Your task to perform on an android device: turn off location history Image 0: 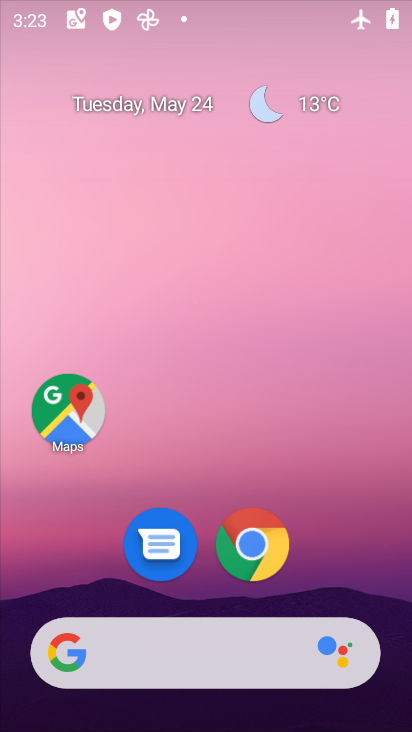
Step 0: drag from (364, 533) to (342, 108)
Your task to perform on an android device: turn off location history Image 1: 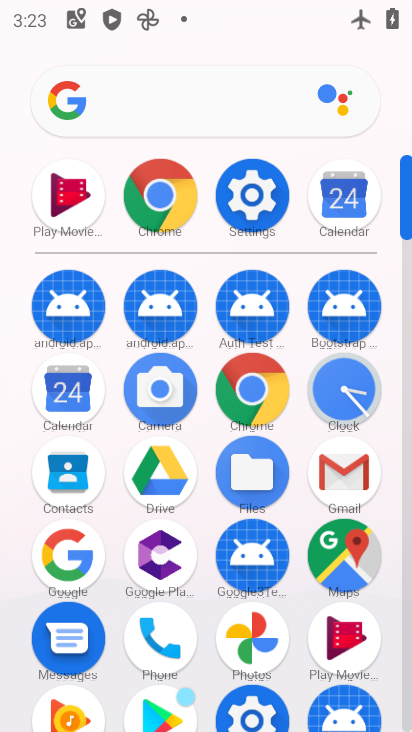
Step 1: click (281, 199)
Your task to perform on an android device: turn off location history Image 2: 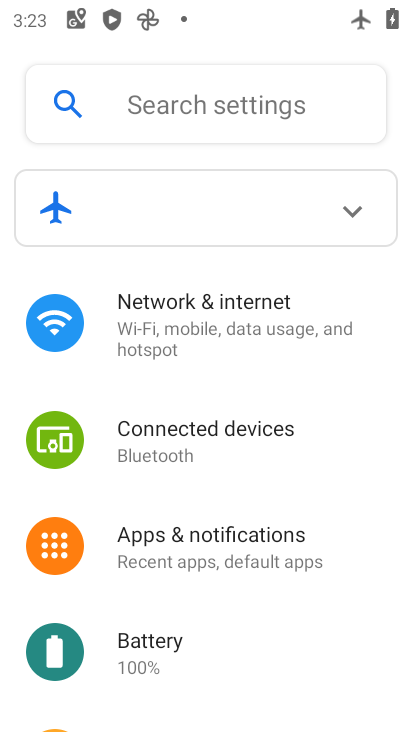
Step 2: drag from (202, 575) to (189, 235)
Your task to perform on an android device: turn off location history Image 3: 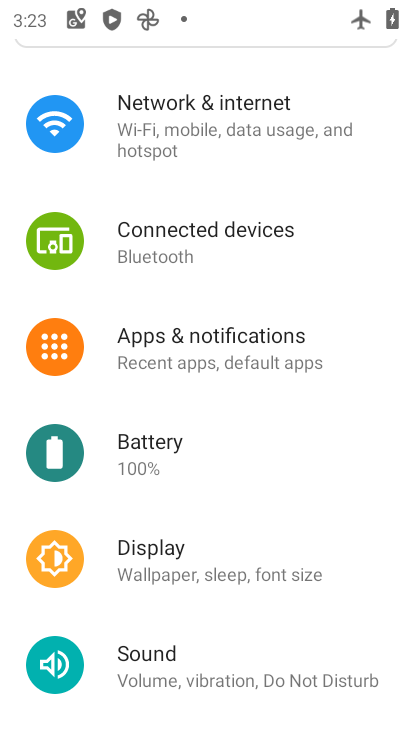
Step 3: drag from (247, 606) to (245, 155)
Your task to perform on an android device: turn off location history Image 4: 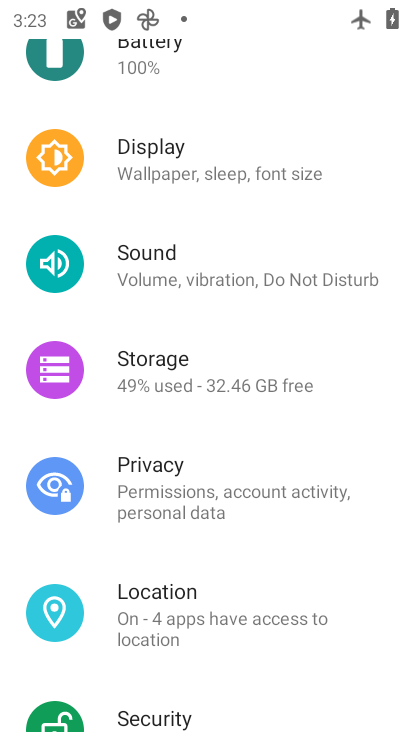
Step 4: click (203, 596)
Your task to perform on an android device: turn off location history Image 5: 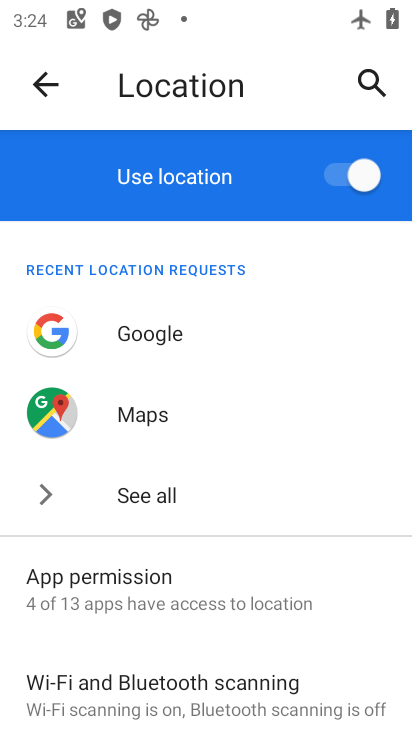
Step 5: drag from (230, 610) to (251, 195)
Your task to perform on an android device: turn off location history Image 6: 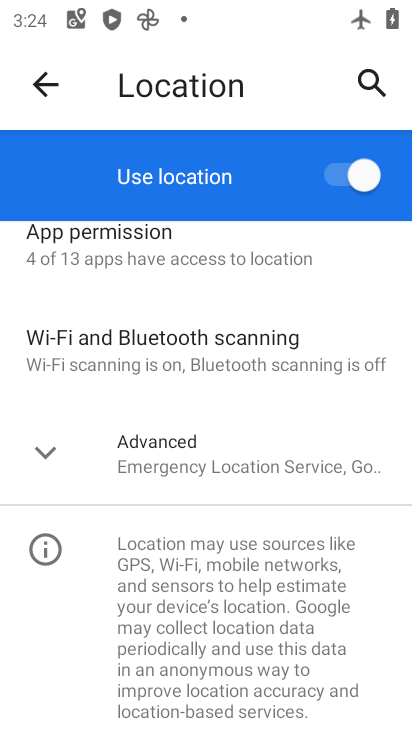
Step 6: click (187, 467)
Your task to perform on an android device: turn off location history Image 7: 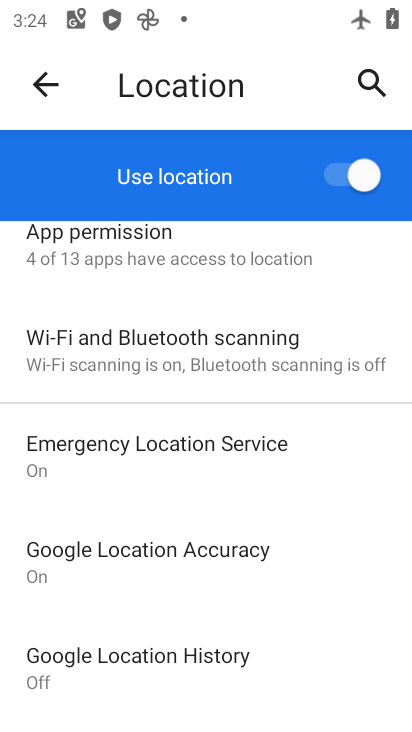
Step 7: click (203, 594)
Your task to perform on an android device: turn off location history Image 8: 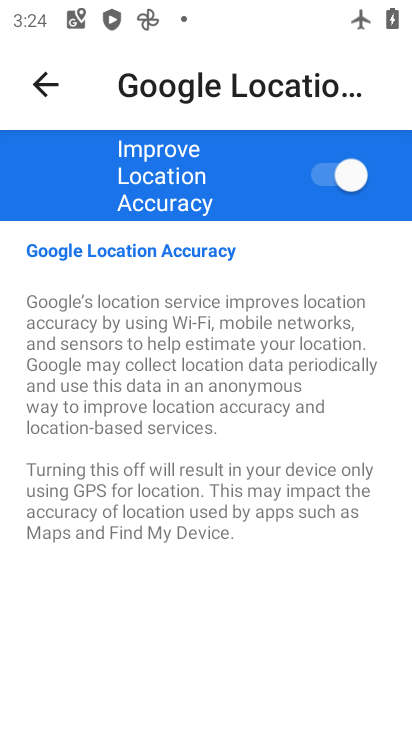
Step 8: click (53, 108)
Your task to perform on an android device: turn off location history Image 9: 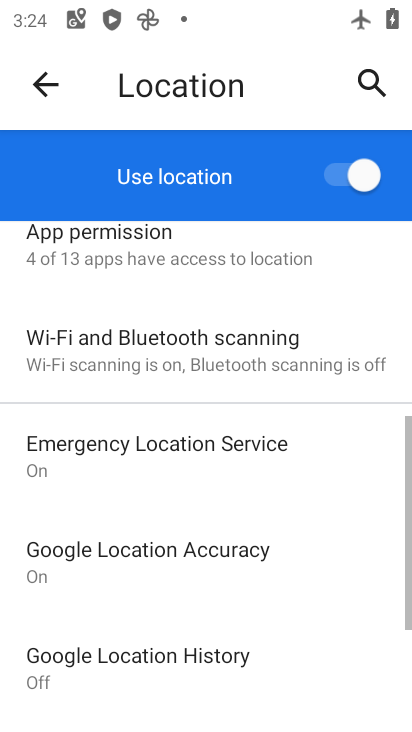
Step 9: click (218, 647)
Your task to perform on an android device: turn off location history Image 10: 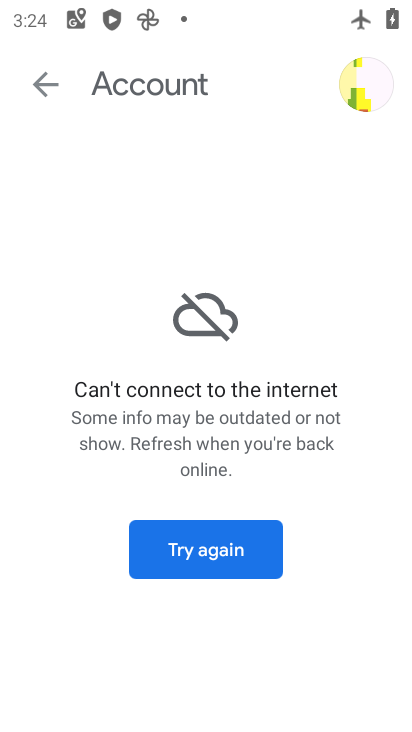
Step 10: task complete